Your task to perform on an android device: see tabs open on other devices in the chrome app Image 0: 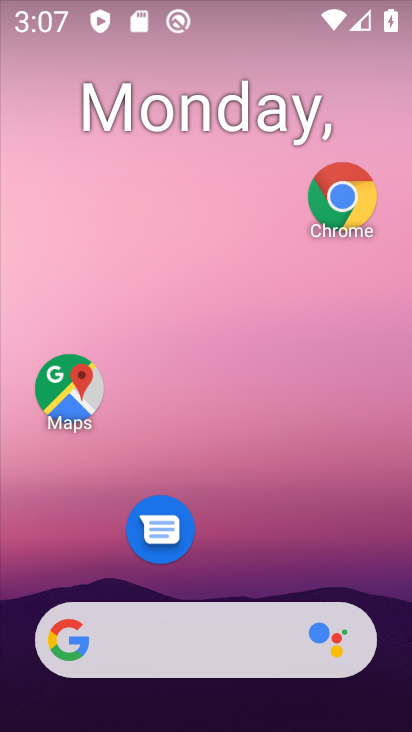
Step 0: drag from (221, 601) to (278, 61)
Your task to perform on an android device: see tabs open on other devices in the chrome app Image 1: 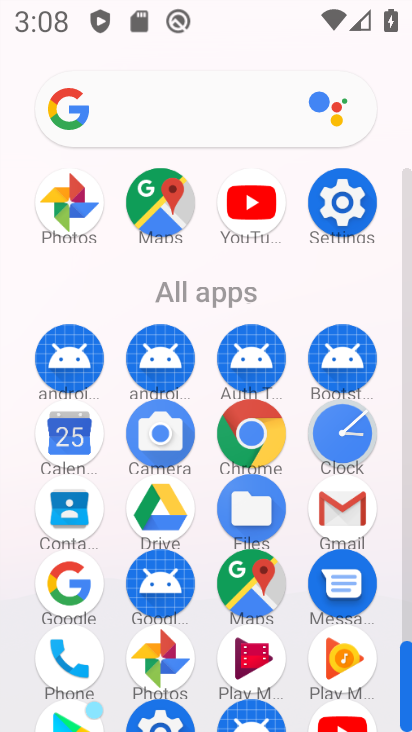
Step 1: click (254, 445)
Your task to perform on an android device: see tabs open on other devices in the chrome app Image 2: 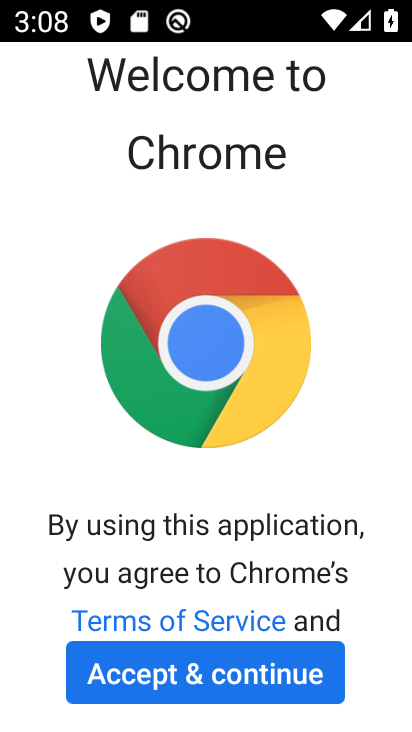
Step 2: click (271, 674)
Your task to perform on an android device: see tabs open on other devices in the chrome app Image 3: 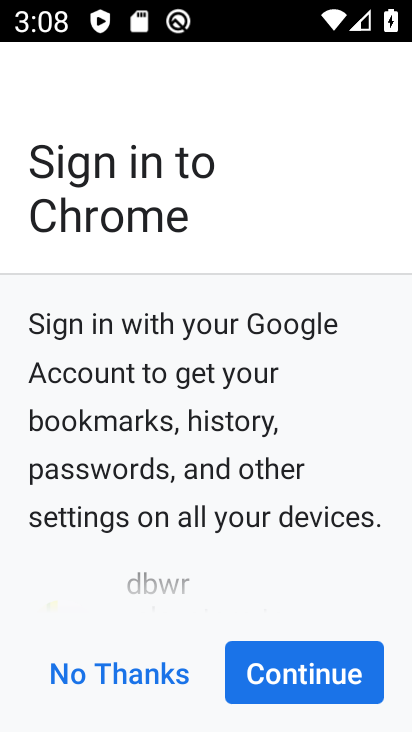
Step 3: click (291, 679)
Your task to perform on an android device: see tabs open on other devices in the chrome app Image 4: 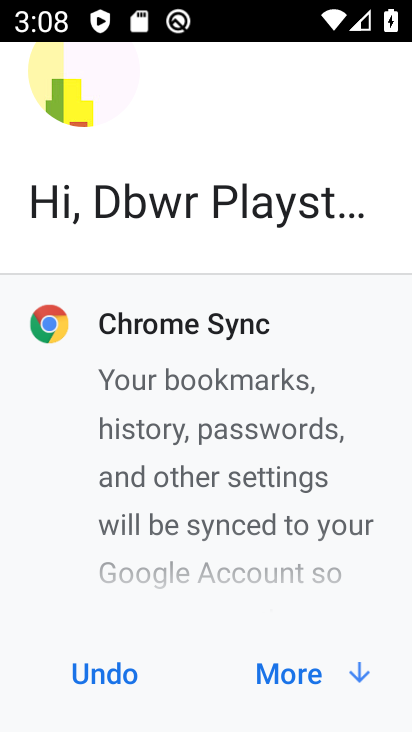
Step 4: click (288, 680)
Your task to perform on an android device: see tabs open on other devices in the chrome app Image 5: 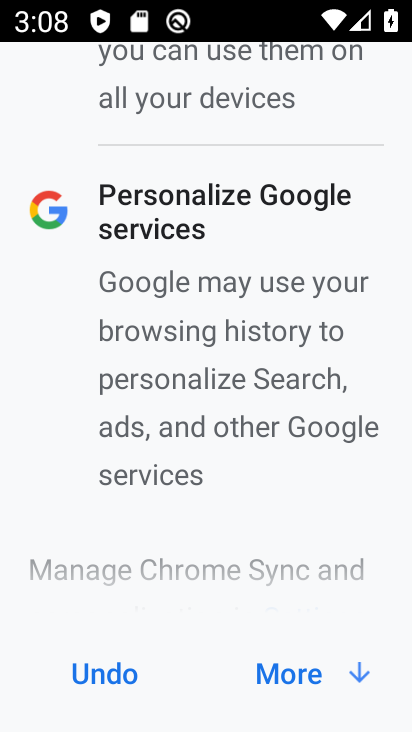
Step 5: click (288, 680)
Your task to perform on an android device: see tabs open on other devices in the chrome app Image 6: 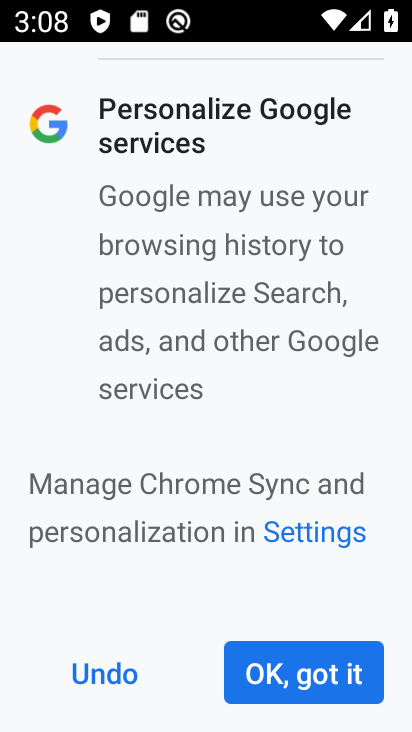
Step 6: click (359, 670)
Your task to perform on an android device: see tabs open on other devices in the chrome app Image 7: 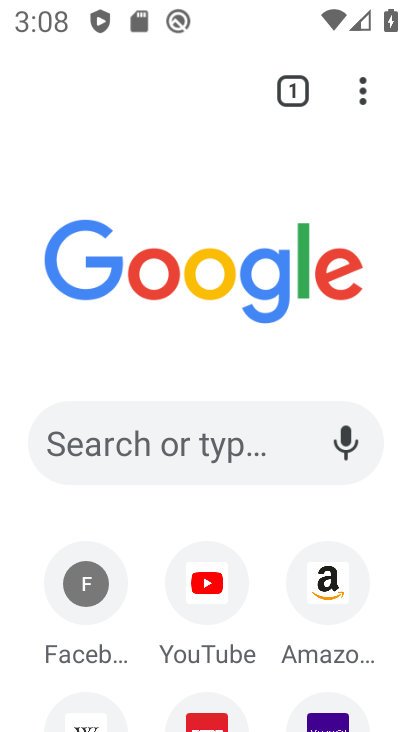
Step 7: click (301, 92)
Your task to perform on an android device: see tabs open on other devices in the chrome app Image 8: 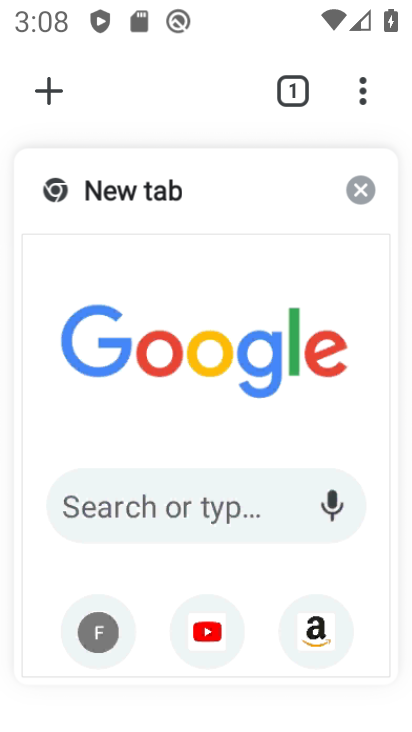
Step 8: task complete